Your task to perform on an android device: Search for "logitech g502" on newegg.com, select the first entry, and add it to the cart. Image 0: 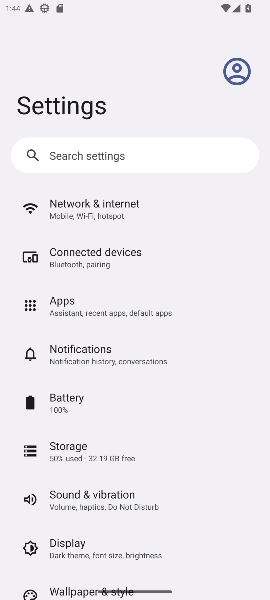
Step 0: press home button
Your task to perform on an android device: Search for "logitech g502" on newegg.com, select the first entry, and add it to the cart. Image 1: 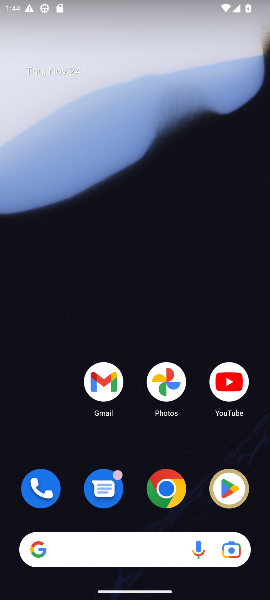
Step 1: click (166, 487)
Your task to perform on an android device: Search for "logitech g502" on newegg.com, select the first entry, and add it to the cart. Image 2: 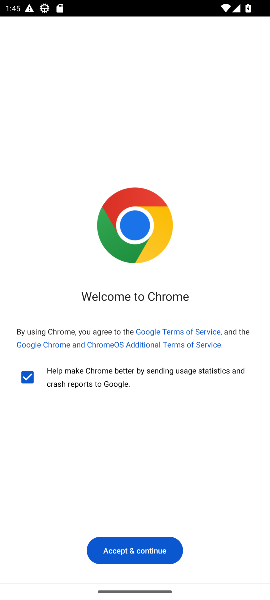
Step 2: click (130, 552)
Your task to perform on an android device: Search for "logitech g502" on newegg.com, select the first entry, and add it to the cart. Image 3: 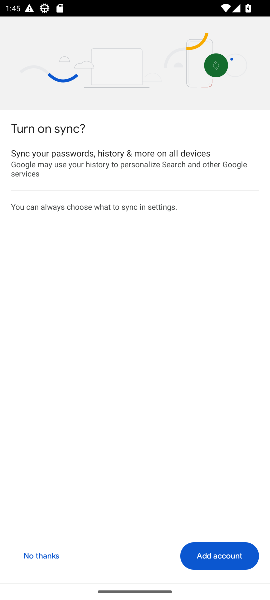
Step 3: click (40, 557)
Your task to perform on an android device: Search for "logitech g502" on newegg.com, select the first entry, and add it to the cart. Image 4: 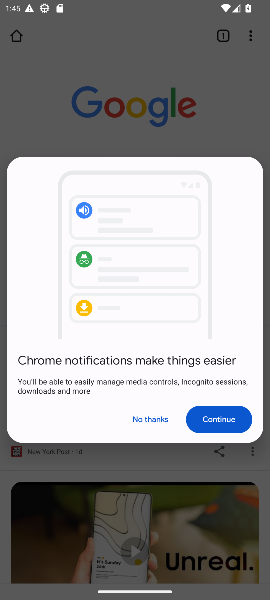
Step 4: press home button
Your task to perform on an android device: Search for "logitech g502" on newegg.com, select the first entry, and add it to the cart. Image 5: 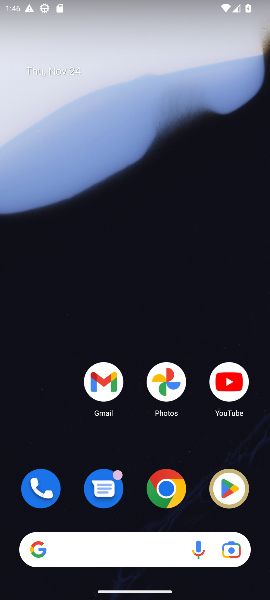
Step 5: click (172, 490)
Your task to perform on an android device: Search for "logitech g502" on newegg.com, select the first entry, and add it to the cart. Image 6: 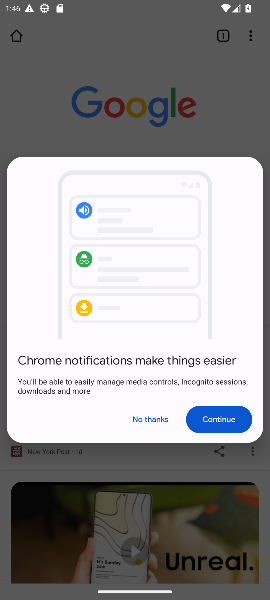
Step 6: click (149, 422)
Your task to perform on an android device: Search for "logitech g502" on newegg.com, select the first entry, and add it to the cart. Image 7: 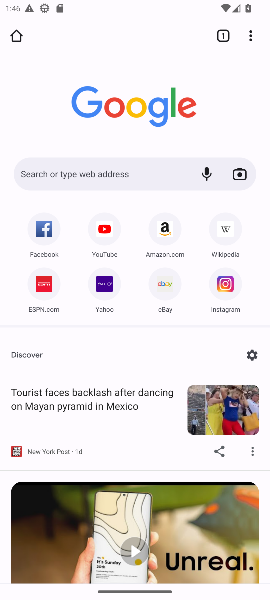
Step 7: click (78, 171)
Your task to perform on an android device: Search for "logitech g502" on newegg.com, select the first entry, and add it to the cart. Image 8: 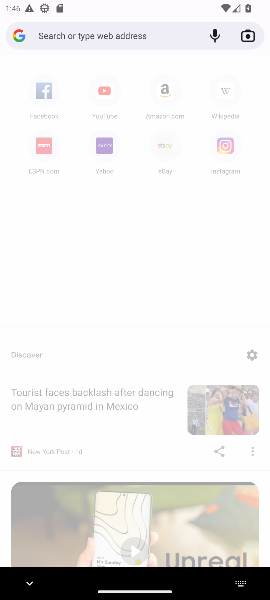
Step 8: type "newegg.com"
Your task to perform on an android device: Search for "logitech g502" on newegg.com, select the first entry, and add it to the cart. Image 9: 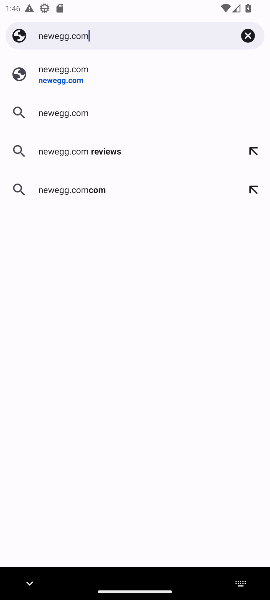
Step 9: click (65, 84)
Your task to perform on an android device: Search for "logitech g502" on newegg.com, select the first entry, and add it to the cart. Image 10: 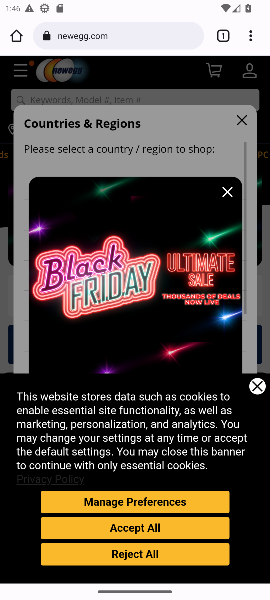
Step 10: click (253, 389)
Your task to perform on an android device: Search for "logitech g502" on newegg.com, select the first entry, and add it to the cart. Image 11: 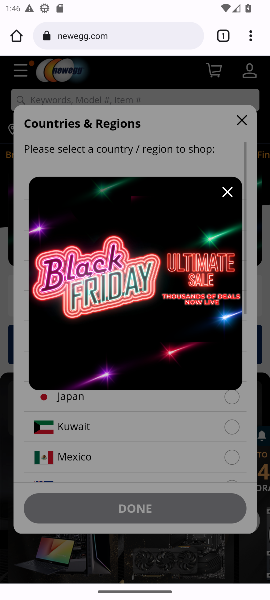
Step 11: click (223, 198)
Your task to perform on an android device: Search for "logitech g502" on newegg.com, select the first entry, and add it to the cart. Image 12: 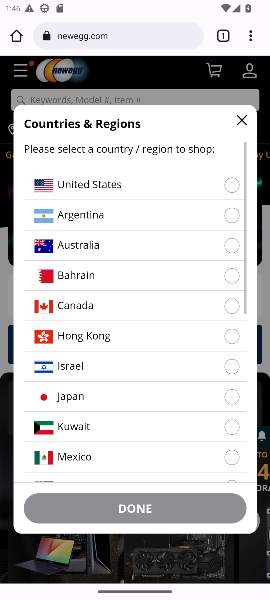
Step 12: click (107, 188)
Your task to perform on an android device: Search for "logitech g502" on newegg.com, select the first entry, and add it to the cart. Image 13: 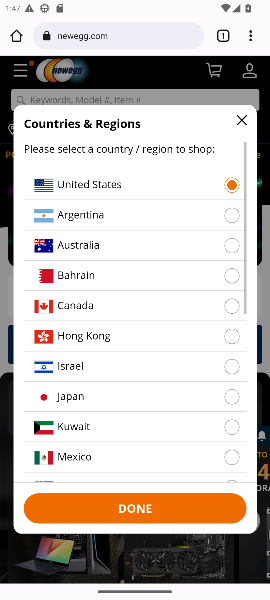
Step 13: click (134, 505)
Your task to perform on an android device: Search for "logitech g502" on newegg.com, select the first entry, and add it to the cart. Image 14: 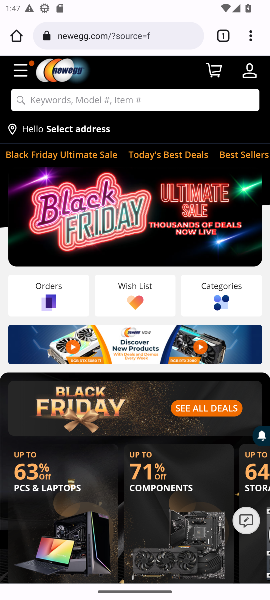
Step 14: click (93, 103)
Your task to perform on an android device: Search for "logitech g502" on newegg.com, select the first entry, and add it to the cart. Image 15: 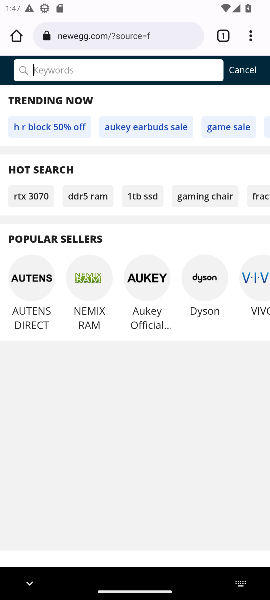
Step 15: type "logitech g502"
Your task to perform on an android device: Search for "logitech g502" on newegg.com, select the first entry, and add it to the cart. Image 16: 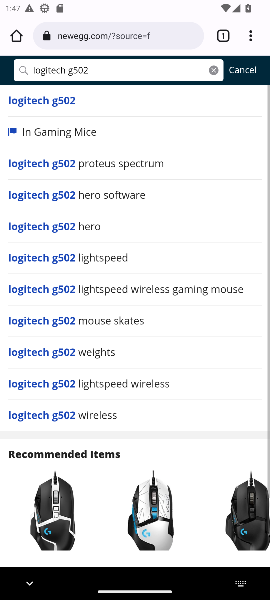
Step 16: click (56, 100)
Your task to perform on an android device: Search for "logitech g502" on newegg.com, select the first entry, and add it to the cart. Image 17: 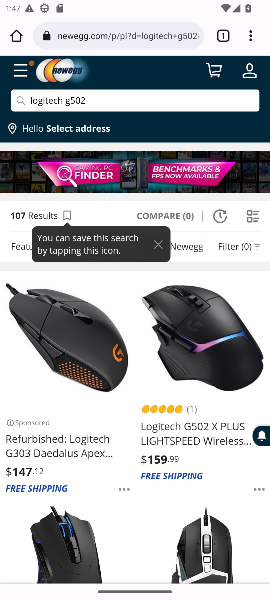
Step 17: task complete